Your task to perform on an android device: Open display settings Image 0: 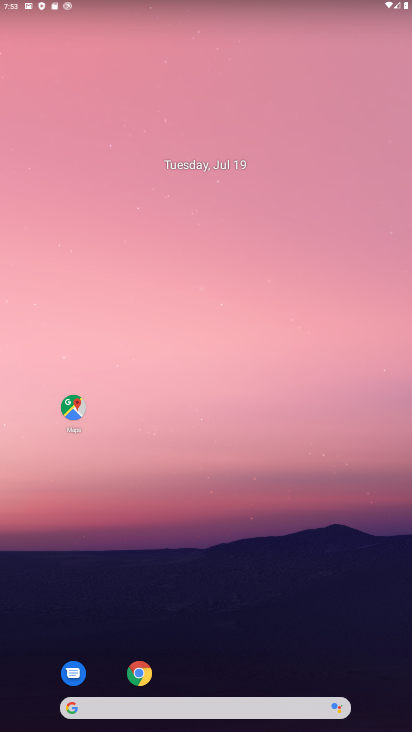
Step 0: drag from (194, 671) to (205, 384)
Your task to perform on an android device: Open display settings Image 1: 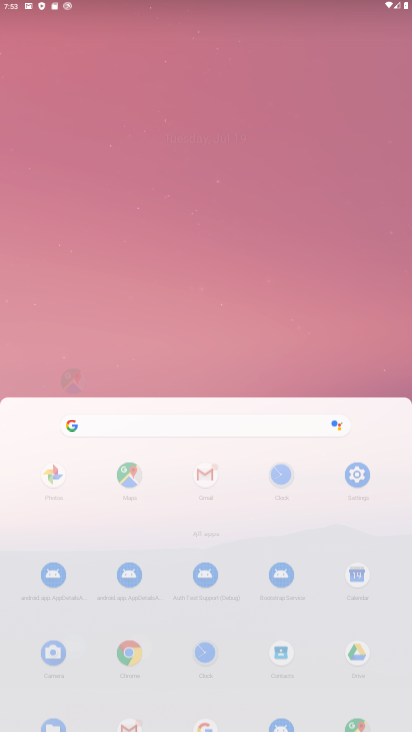
Step 1: click (205, 384)
Your task to perform on an android device: Open display settings Image 2: 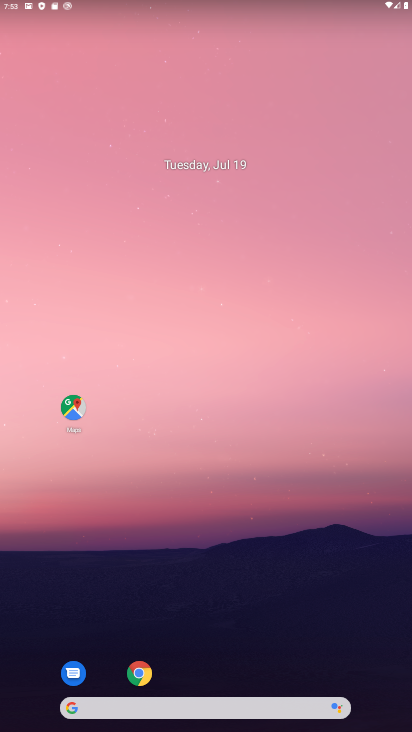
Step 2: drag from (227, 679) to (259, 185)
Your task to perform on an android device: Open display settings Image 3: 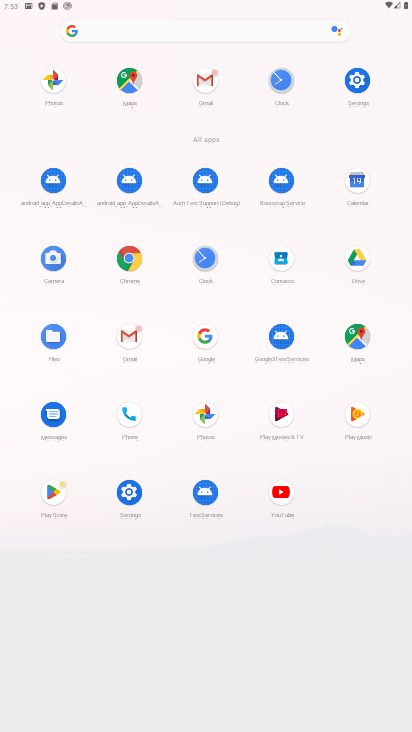
Step 3: click (115, 490)
Your task to perform on an android device: Open display settings Image 4: 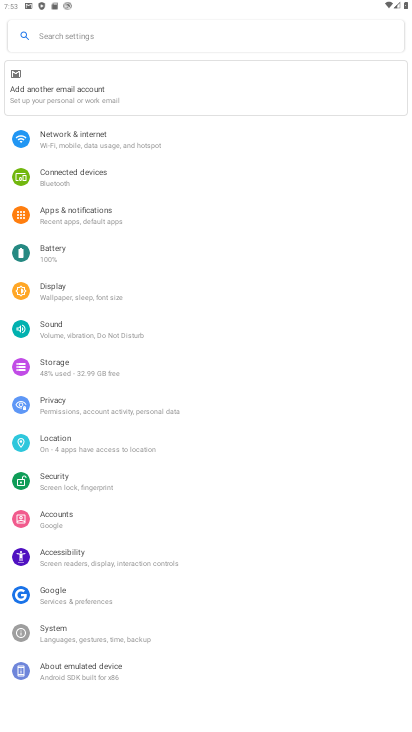
Step 4: click (84, 290)
Your task to perform on an android device: Open display settings Image 5: 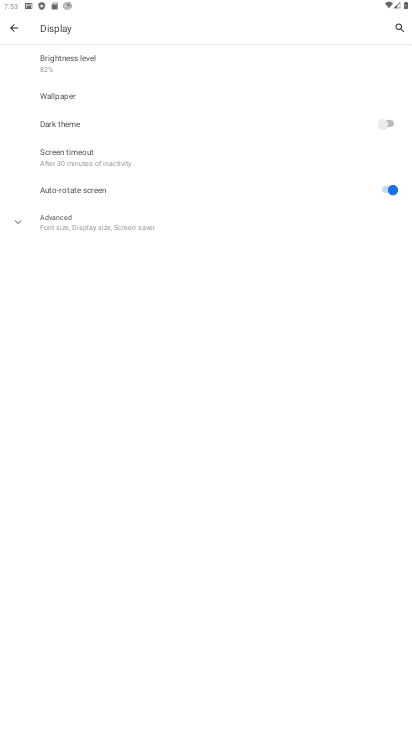
Step 5: click (83, 223)
Your task to perform on an android device: Open display settings Image 6: 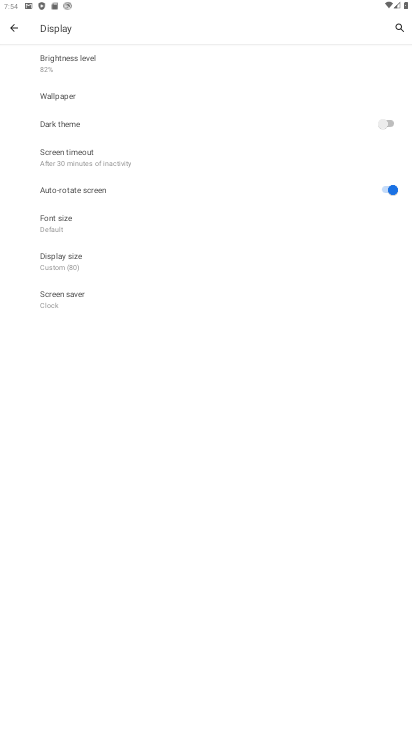
Step 6: task complete